Your task to perform on an android device: Open notification settings Image 0: 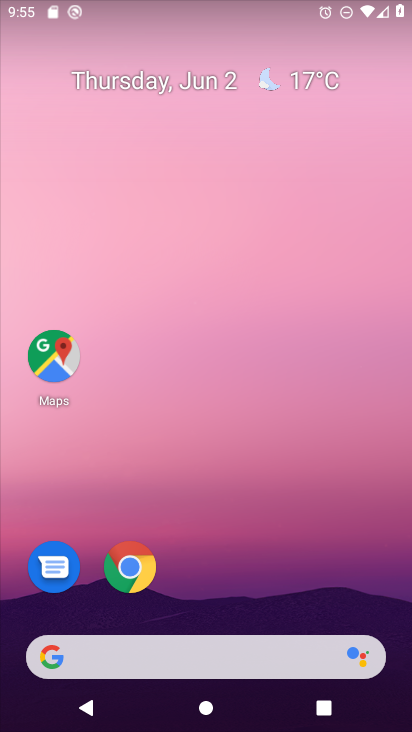
Step 0: drag from (225, 600) to (259, 4)
Your task to perform on an android device: Open notification settings Image 1: 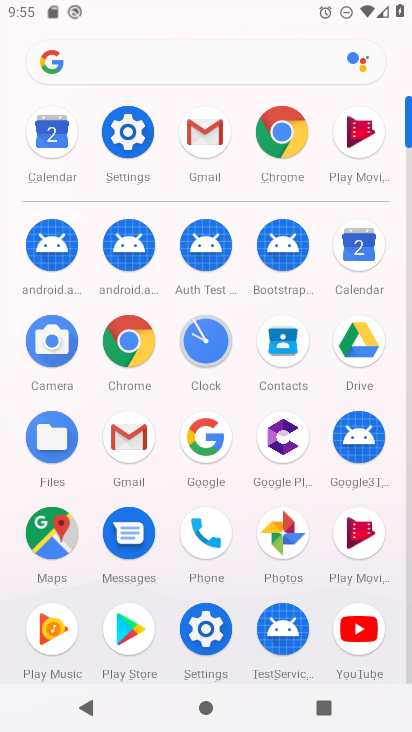
Step 1: click (220, 629)
Your task to perform on an android device: Open notification settings Image 2: 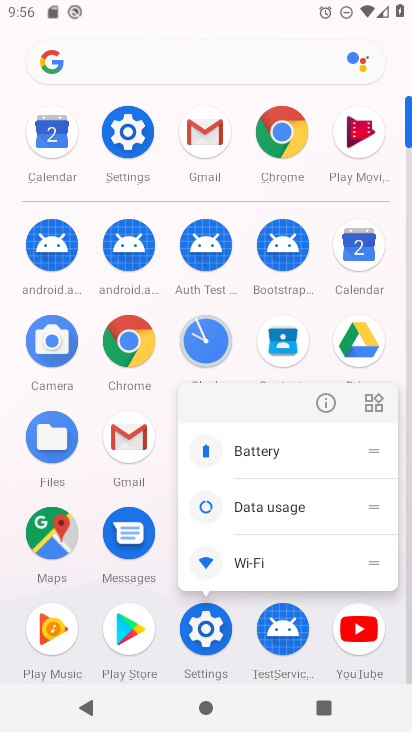
Step 2: click (211, 624)
Your task to perform on an android device: Open notification settings Image 3: 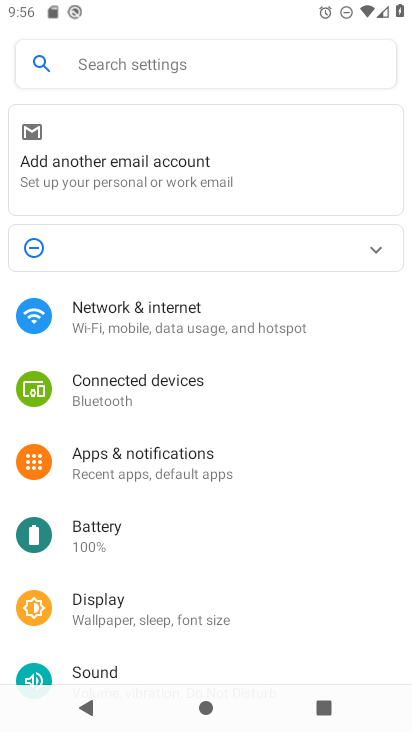
Step 3: click (163, 472)
Your task to perform on an android device: Open notification settings Image 4: 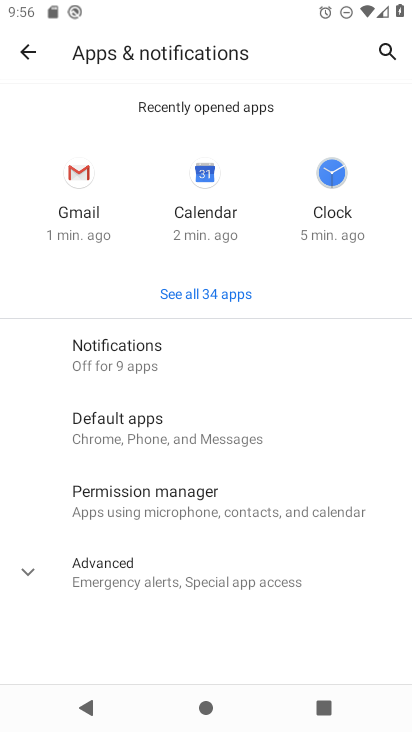
Step 4: click (146, 370)
Your task to perform on an android device: Open notification settings Image 5: 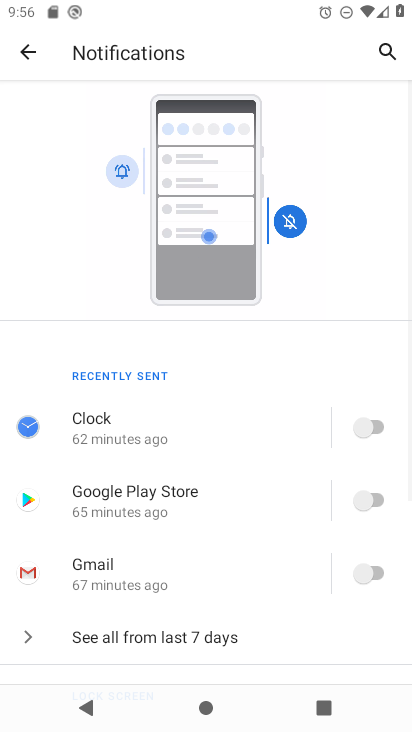
Step 5: drag from (185, 560) to (211, 277)
Your task to perform on an android device: Open notification settings Image 6: 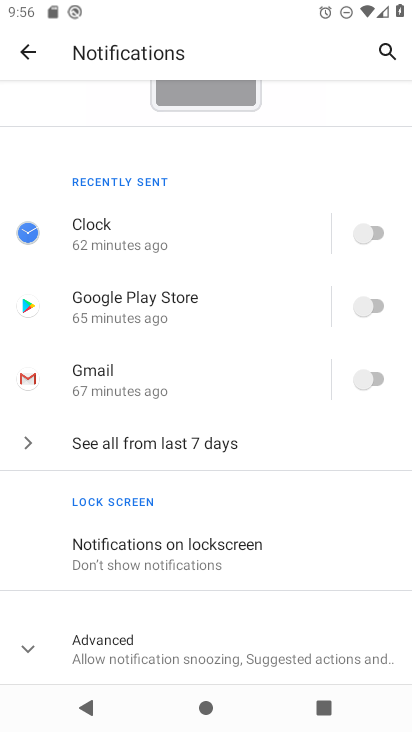
Step 6: click (159, 438)
Your task to perform on an android device: Open notification settings Image 7: 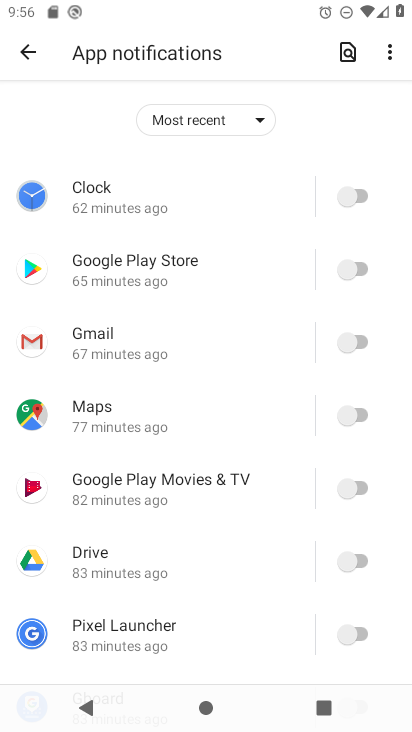
Step 7: click (371, 212)
Your task to perform on an android device: Open notification settings Image 8: 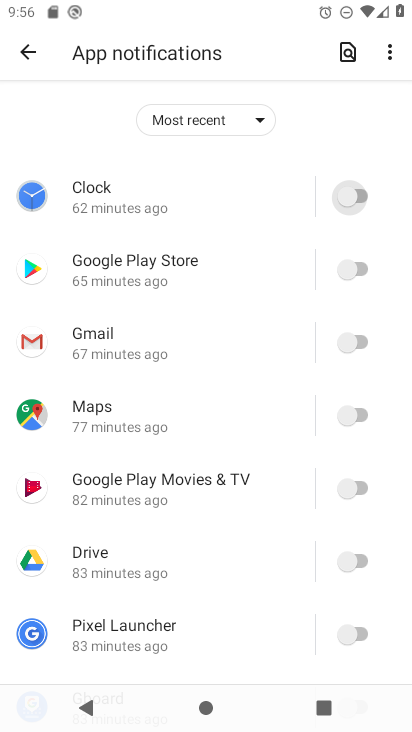
Step 8: click (372, 240)
Your task to perform on an android device: Open notification settings Image 9: 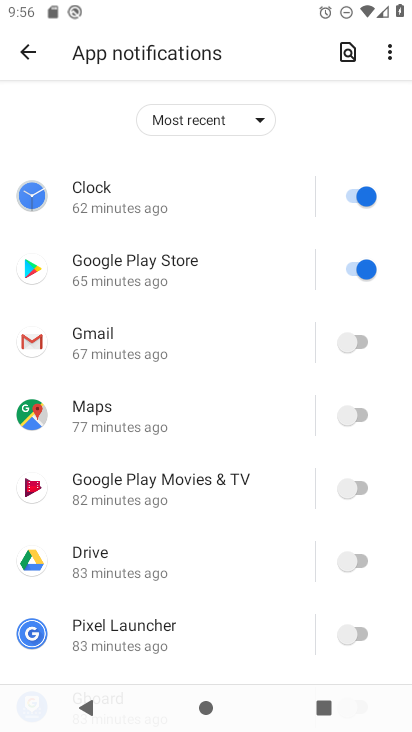
Step 9: click (362, 352)
Your task to perform on an android device: Open notification settings Image 10: 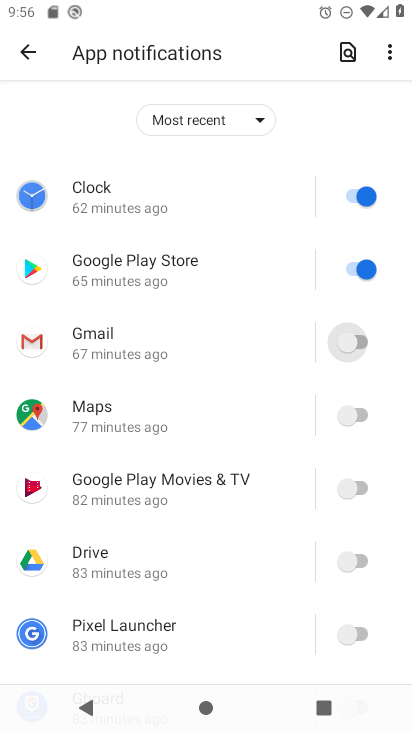
Step 10: click (369, 423)
Your task to perform on an android device: Open notification settings Image 11: 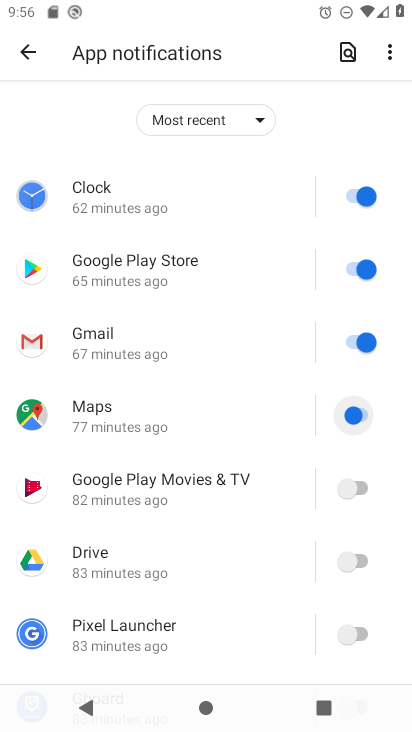
Step 11: click (356, 497)
Your task to perform on an android device: Open notification settings Image 12: 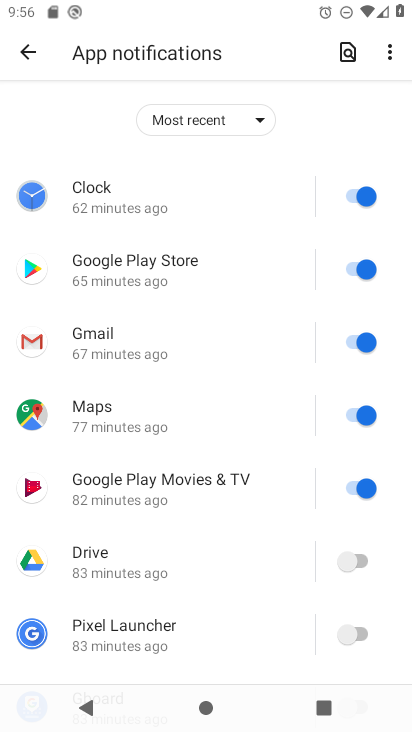
Step 12: click (371, 579)
Your task to perform on an android device: Open notification settings Image 13: 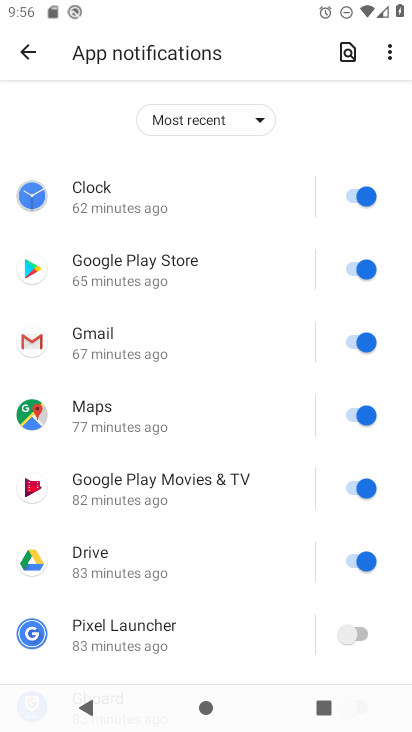
Step 13: click (357, 627)
Your task to perform on an android device: Open notification settings Image 14: 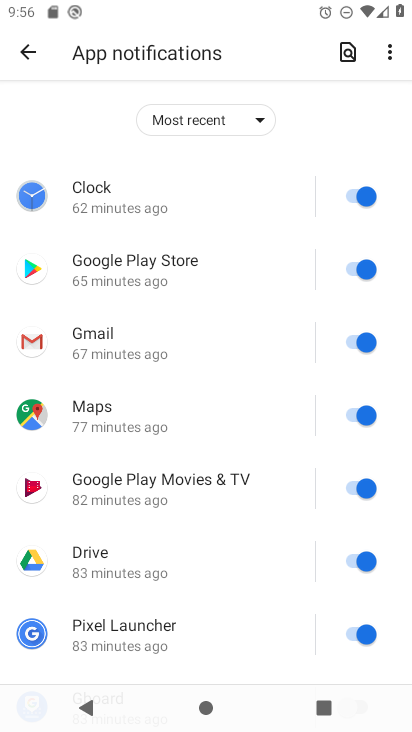
Step 14: drag from (254, 616) to (300, 149)
Your task to perform on an android device: Open notification settings Image 15: 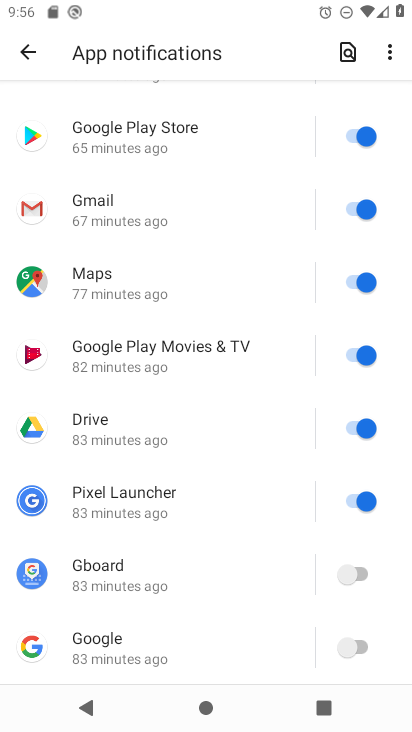
Step 15: click (362, 566)
Your task to perform on an android device: Open notification settings Image 16: 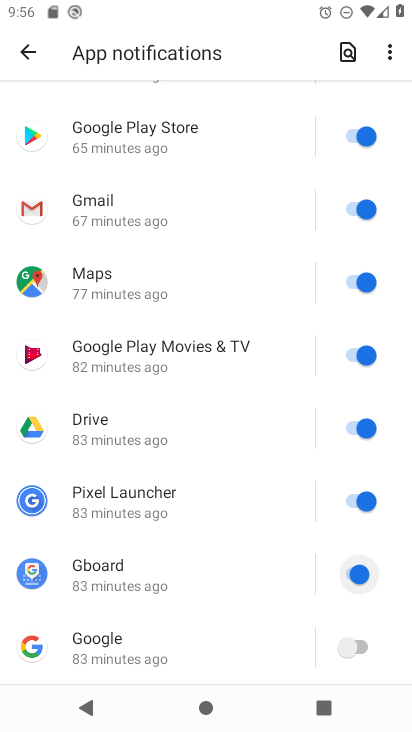
Step 16: click (365, 648)
Your task to perform on an android device: Open notification settings Image 17: 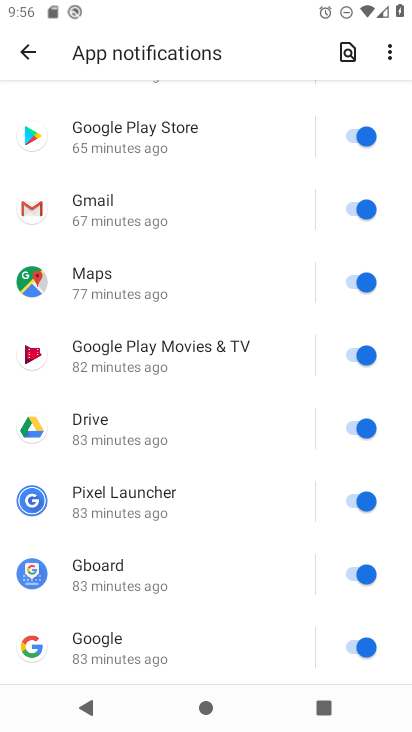
Step 17: task complete